Your task to perform on an android device: turn off location history Image 0: 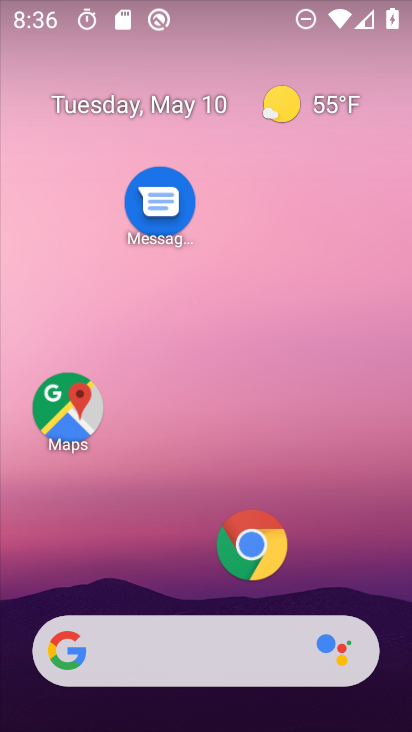
Step 0: drag from (181, 573) to (268, 34)
Your task to perform on an android device: turn off location history Image 1: 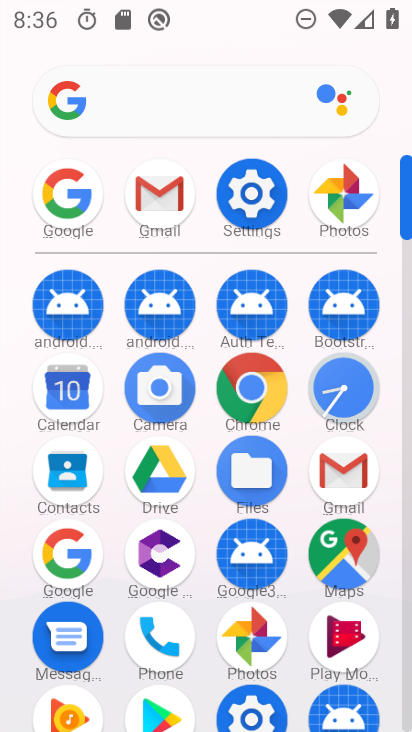
Step 1: click (248, 173)
Your task to perform on an android device: turn off location history Image 2: 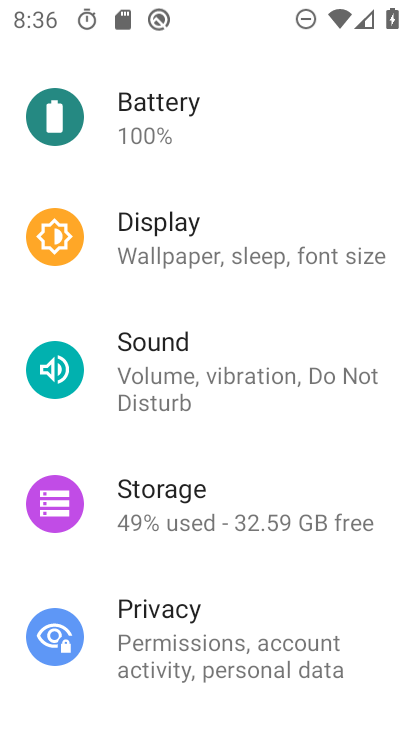
Step 2: drag from (257, 625) to (279, 323)
Your task to perform on an android device: turn off location history Image 3: 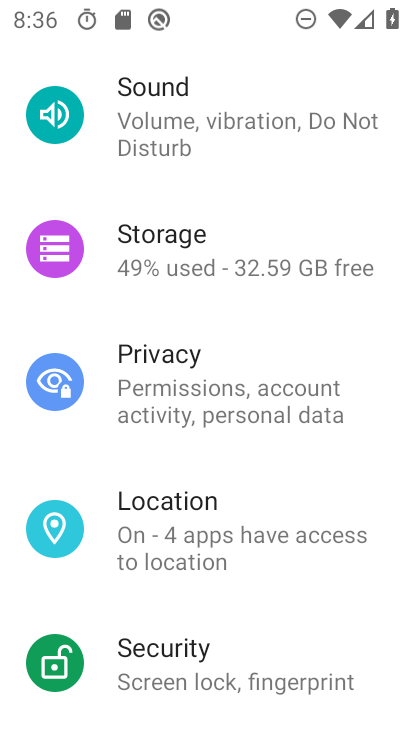
Step 3: click (209, 514)
Your task to perform on an android device: turn off location history Image 4: 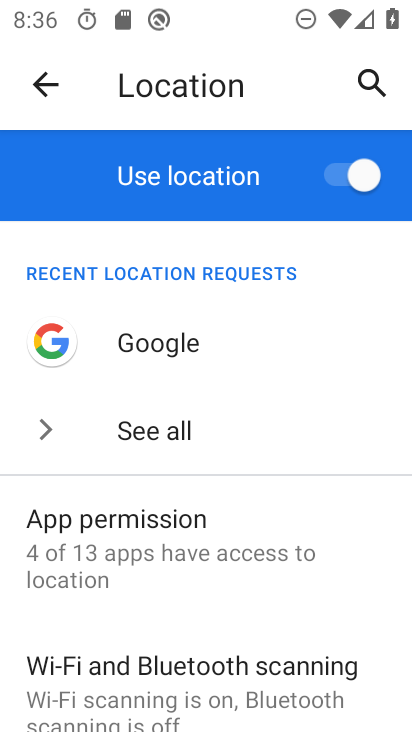
Step 4: drag from (169, 615) to (159, 302)
Your task to perform on an android device: turn off location history Image 5: 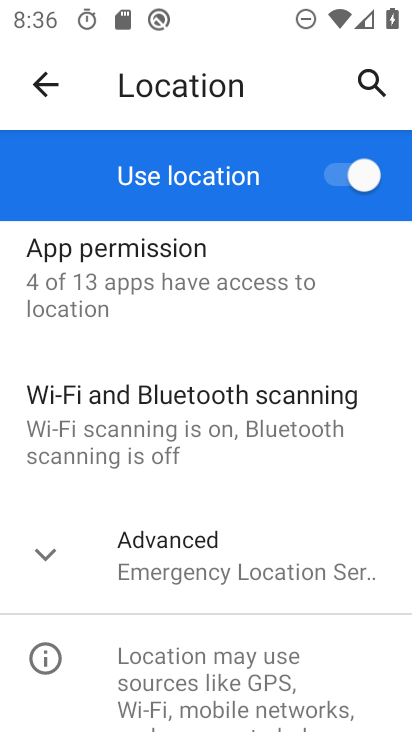
Step 5: drag from (162, 654) to (185, 443)
Your task to perform on an android device: turn off location history Image 6: 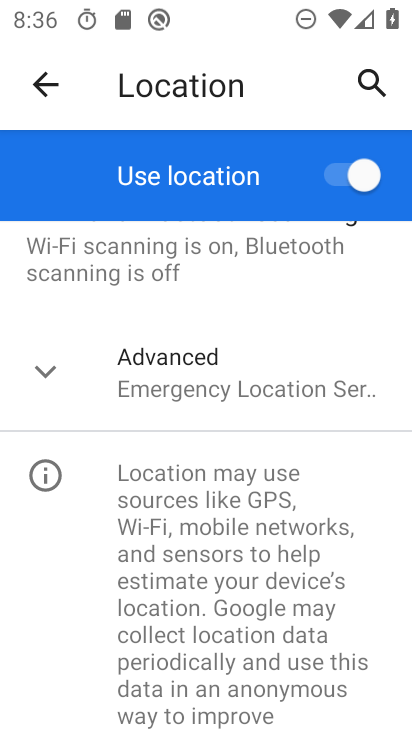
Step 6: click (144, 399)
Your task to perform on an android device: turn off location history Image 7: 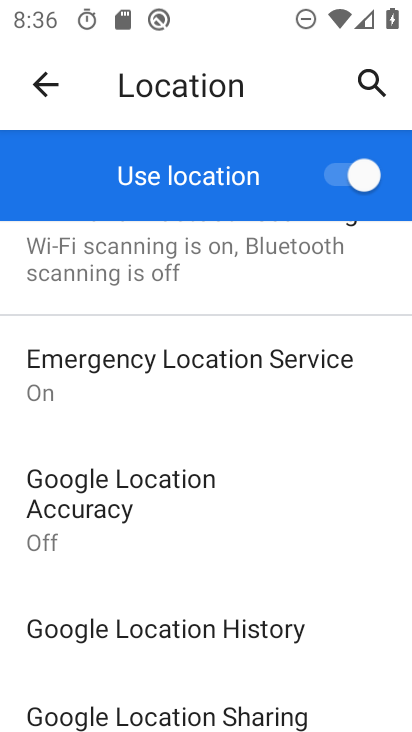
Step 7: click (195, 616)
Your task to perform on an android device: turn off location history Image 8: 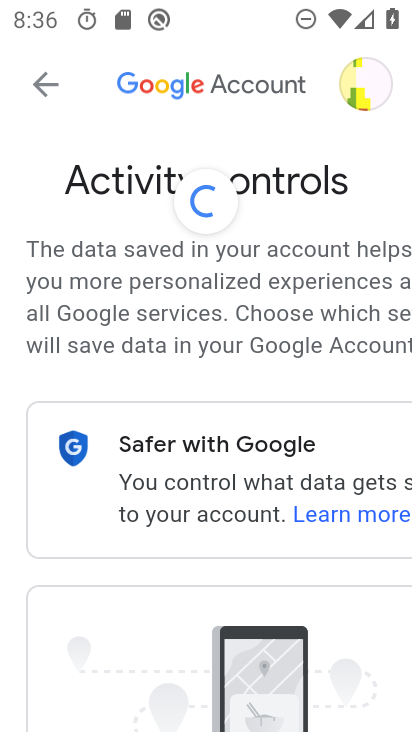
Step 8: task complete